Your task to perform on an android device: turn on wifi Image 0: 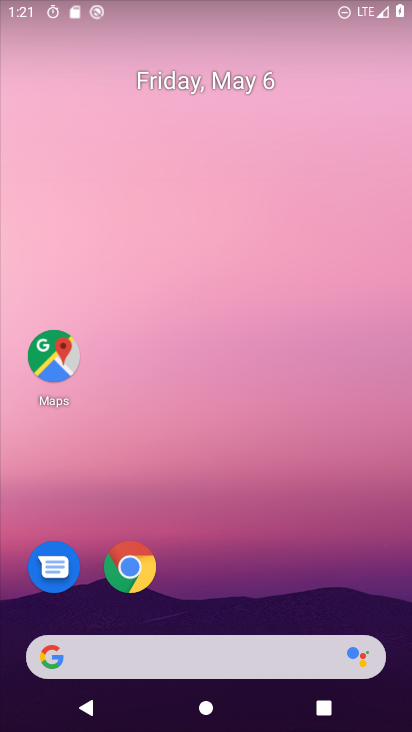
Step 0: drag from (308, 590) to (323, 72)
Your task to perform on an android device: turn on wifi Image 1: 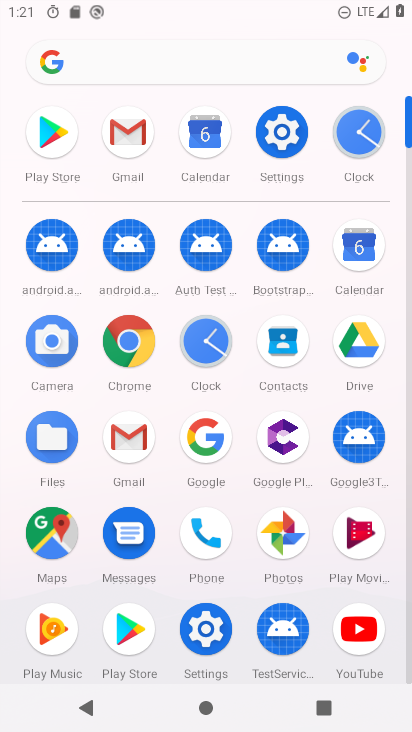
Step 1: click (277, 133)
Your task to perform on an android device: turn on wifi Image 2: 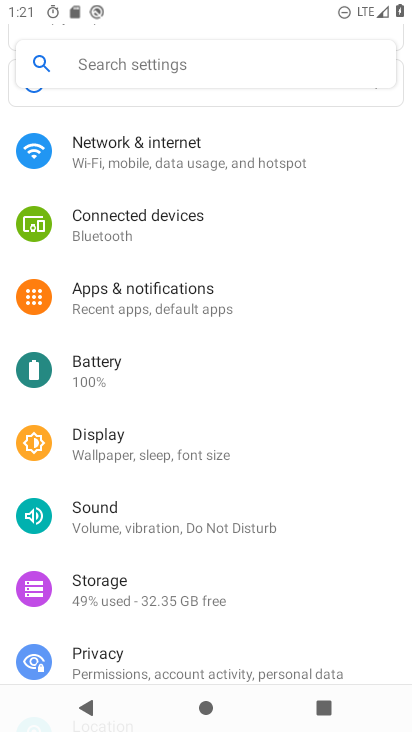
Step 2: click (163, 154)
Your task to perform on an android device: turn on wifi Image 3: 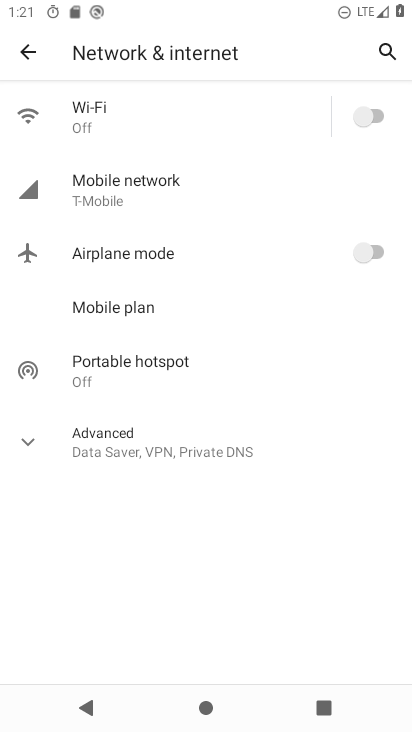
Step 3: click (365, 114)
Your task to perform on an android device: turn on wifi Image 4: 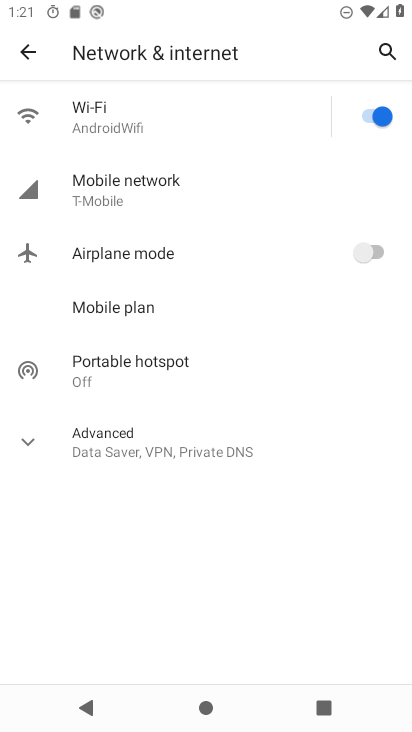
Step 4: task complete